Your task to perform on an android device: turn off notifications settings in the gmail app Image 0: 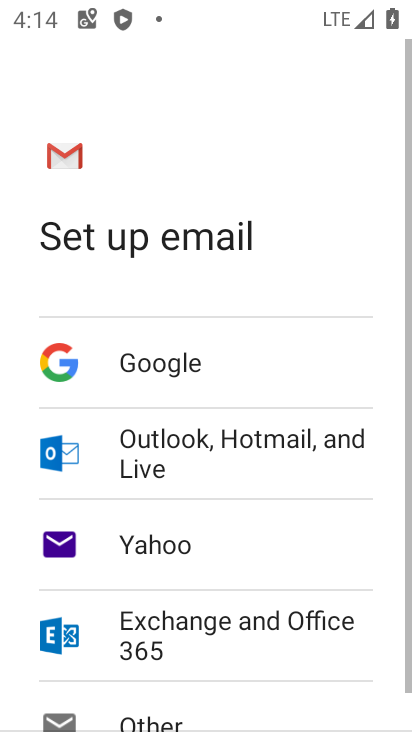
Step 0: press home button
Your task to perform on an android device: turn off notifications settings in the gmail app Image 1: 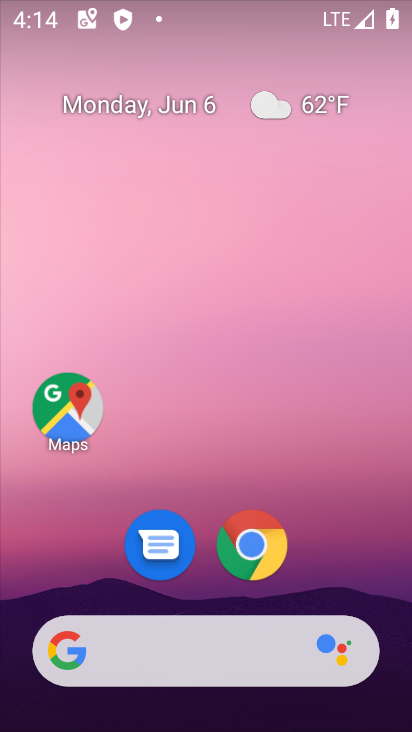
Step 1: drag from (243, 706) to (283, 151)
Your task to perform on an android device: turn off notifications settings in the gmail app Image 2: 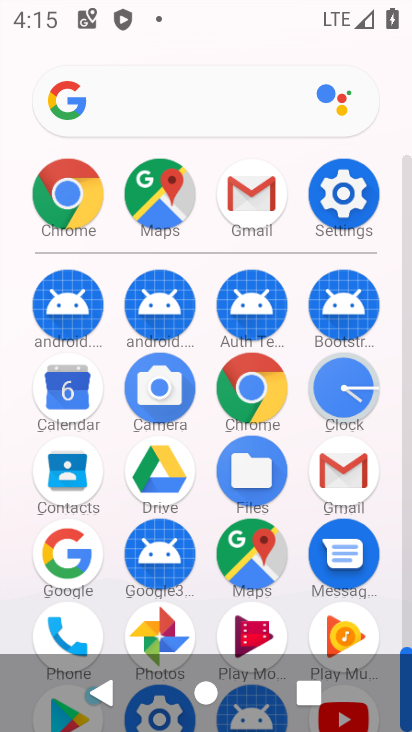
Step 2: click (343, 467)
Your task to perform on an android device: turn off notifications settings in the gmail app Image 3: 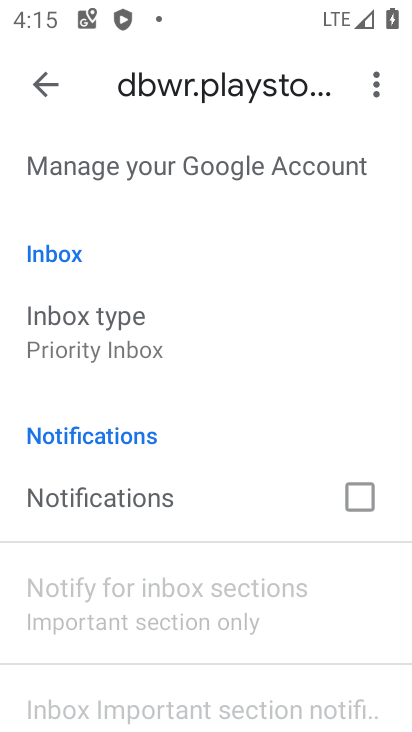
Step 3: task complete